Your task to perform on an android device: see creations saved in the google photos Image 0: 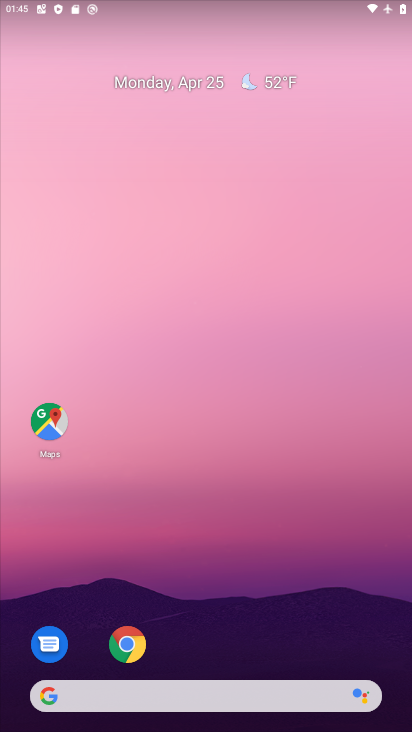
Step 0: drag from (218, 634) to (246, 28)
Your task to perform on an android device: see creations saved in the google photos Image 1: 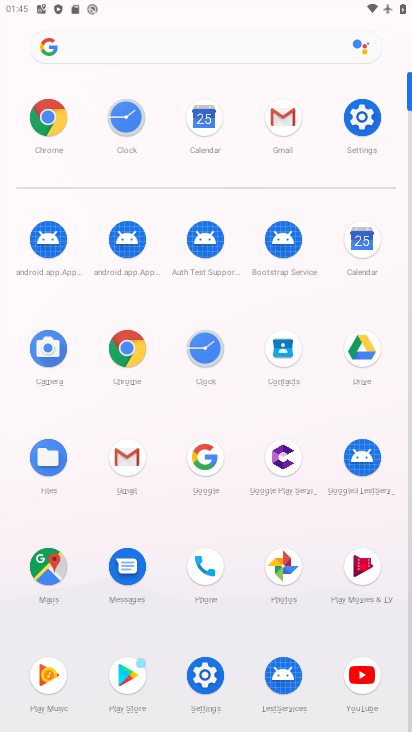
Step 1: click (285, 573)
Your task to perform on an android device: see creations saved in the google photos Image 2: 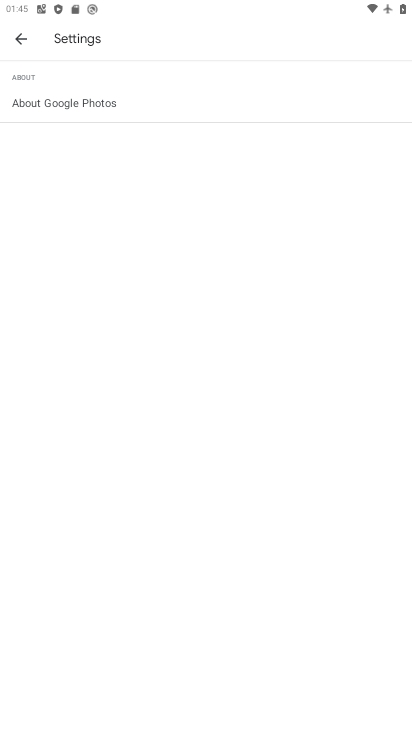
Step 2: click (25, 40)
Your task to perform on an android device: see creations saved in the google photos Image 3: 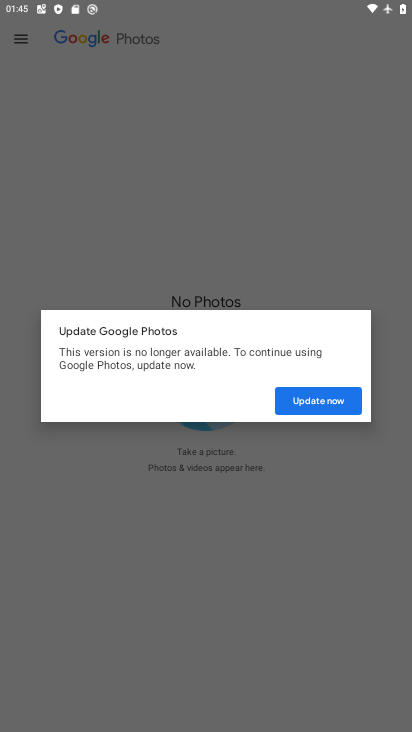
Step 3: click (308, 404)
Your task to perform on an android device: see creations saved in the google photos Image 4: 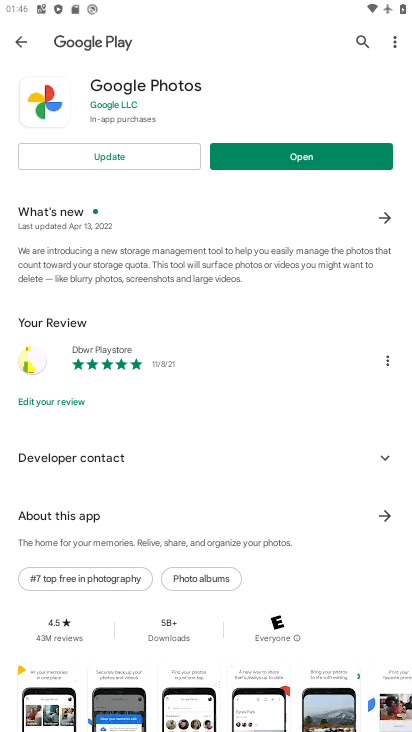
Step 4: click (142, 168)
Your task to perform on an android device: see creations saved in the google photos Image 5: 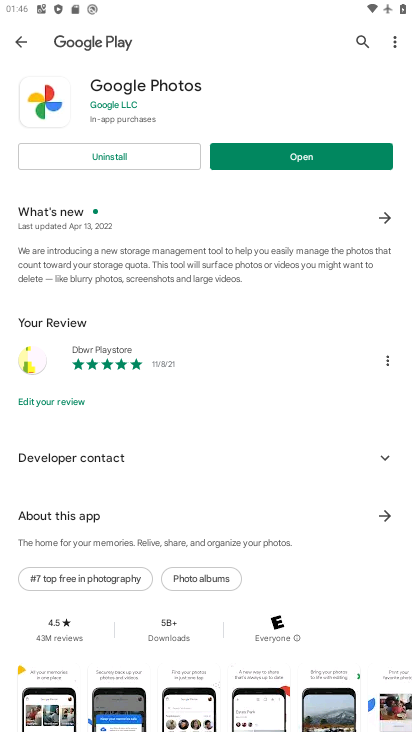
Step 5: click (302, 167)
Your task to perform on an android device: see creations saved in the google photos Image 6: 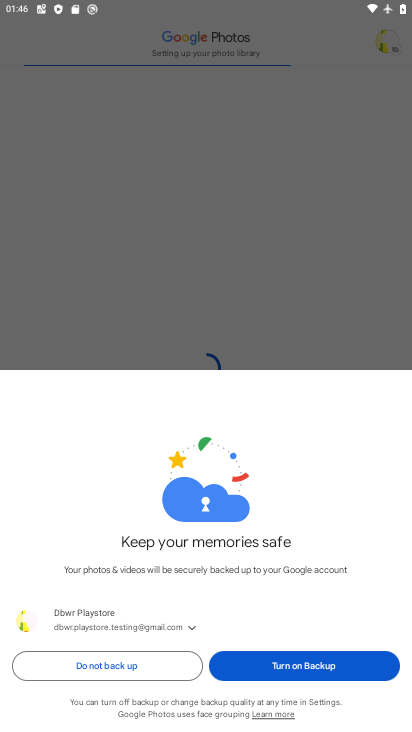
Step 6: click (150, 669)
Your task to perform on an android device: see creations saved in the google photos Image 7: 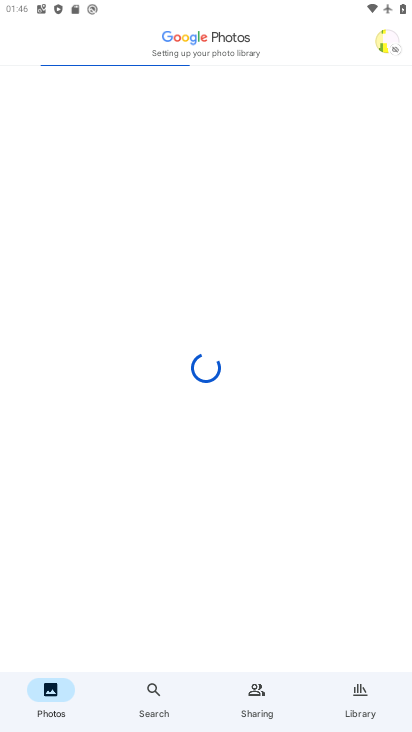
Step 7: task complete